Your task to perform on an android device: Open the Play Movies app and select the watchlist tab. Image 0: 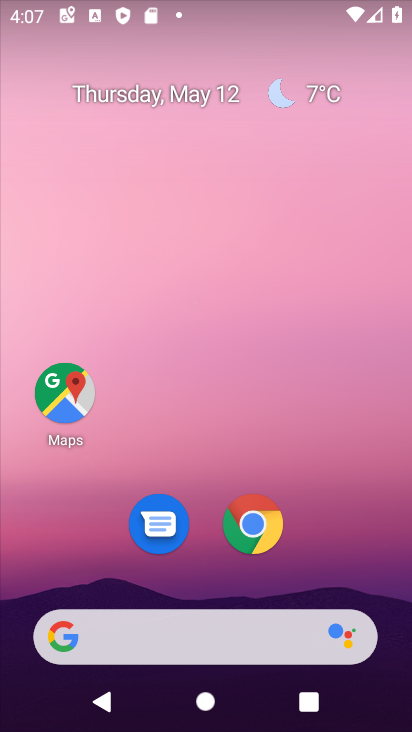
Step 0: drag from (212, 431) to (236, 0)
Your task to perform on an android device: Open the Play Movies app and select the watchlist tab. Image 1: 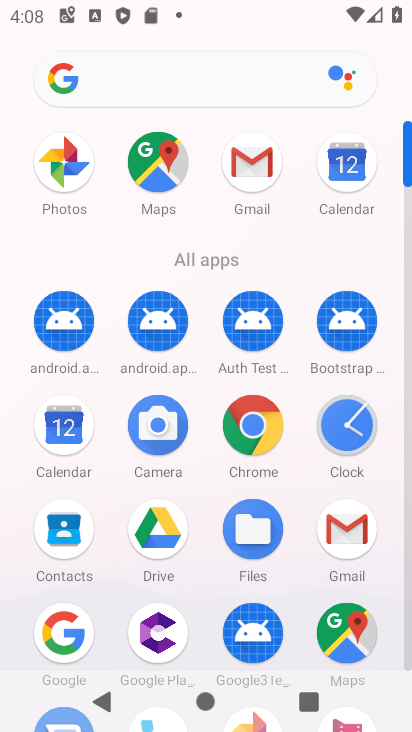
Step 1: drag from (297, 411) to (325, 109)
Your task to perform on an android device: Open the Play Movies app and select the watchlist tab. Image 2: 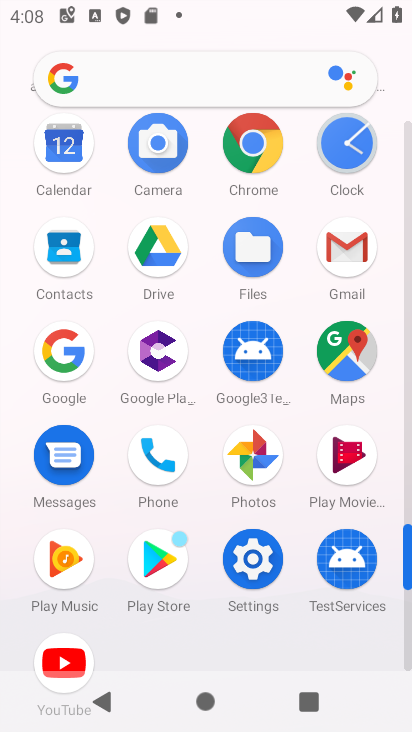
Step 2: click (356, 466)
Your task to perform on an android device: Open the Play Movies app and select the watchlist tab. Image 3: 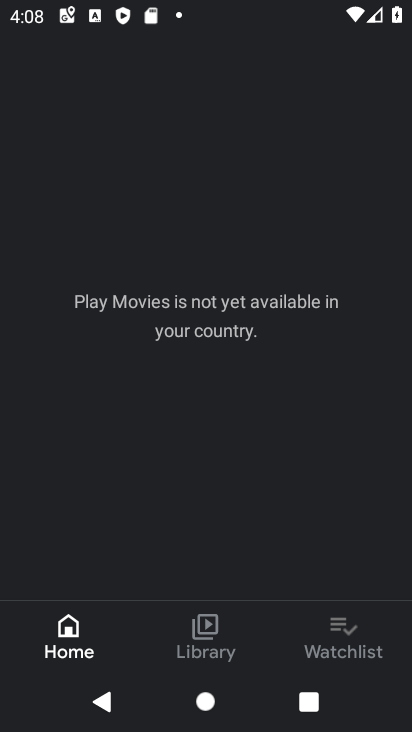
Step 3: click (355, 627)
Your task to perform on an android device: Open the Play Movies app and select the watchlist tab. Image 4: 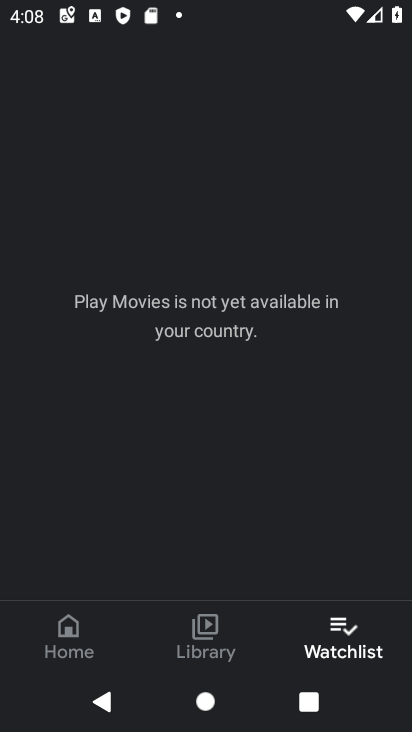
Step 4: task complete